Your task to perform on an android device: turn vacation reply on in the gmail app Image 0: 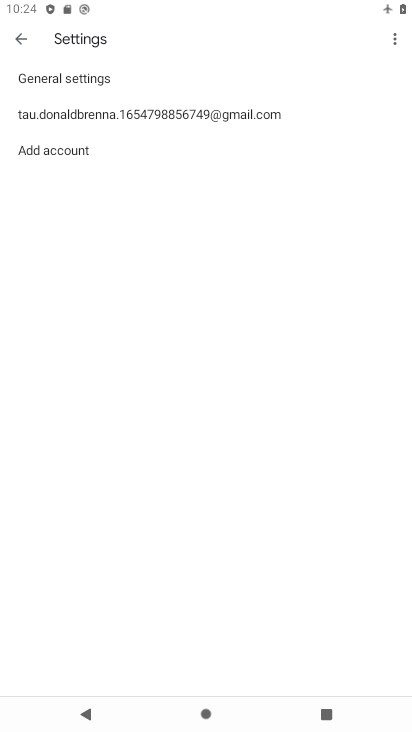
Step 0: press home button
Your task to perform on an android device: turn vacation reply on in the gmail app Image 1: 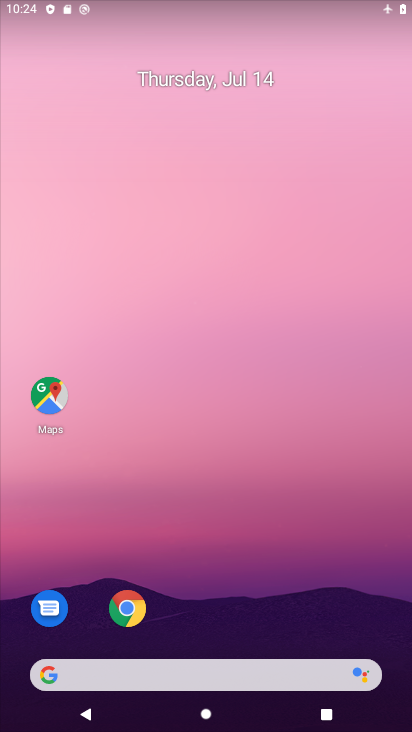
Step 1: drag from (251, 632) to (261, 18)
Your task to perform on an android device: turn vacation reply on in the gmail app Image 2: 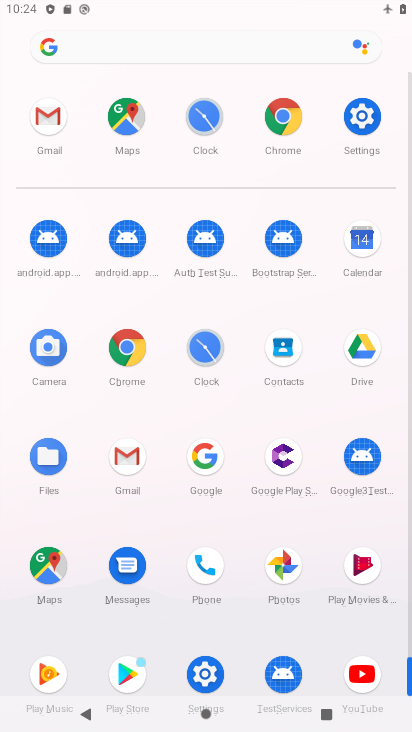
Step 2: click (133, 475)
Your task to perform on an android device: turn vacation reply on in the gmail app Image 3: 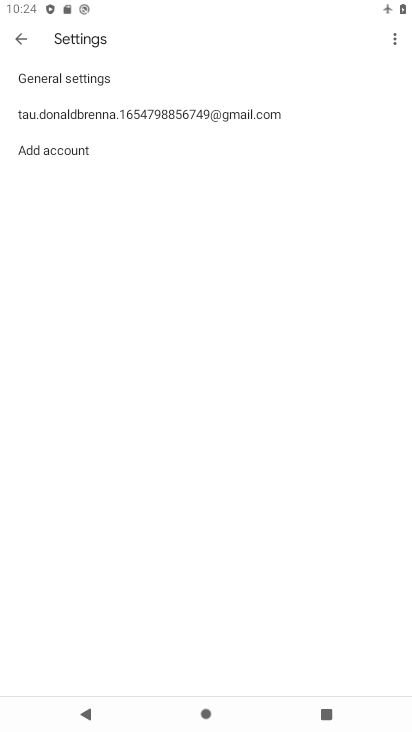
Step 3: click (94, 115)
Your task to perform on an android device: turn vacation reply on in the gmail app Image 4: 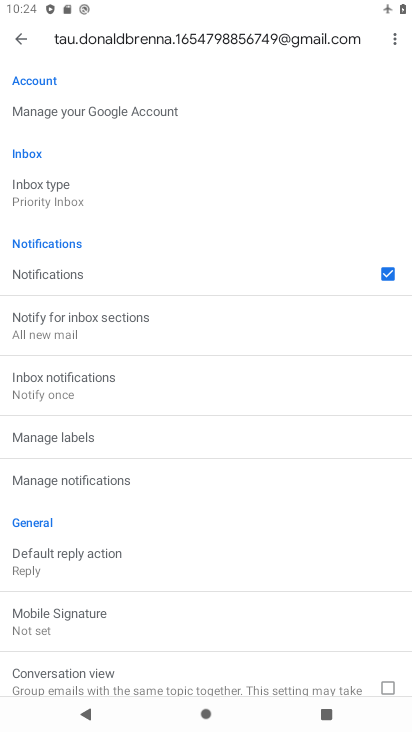
Step 4: drag from (131, 483) to (151, 227)
Your task to perform on an android device: turn vacation reply on in the gmail app Image 5: 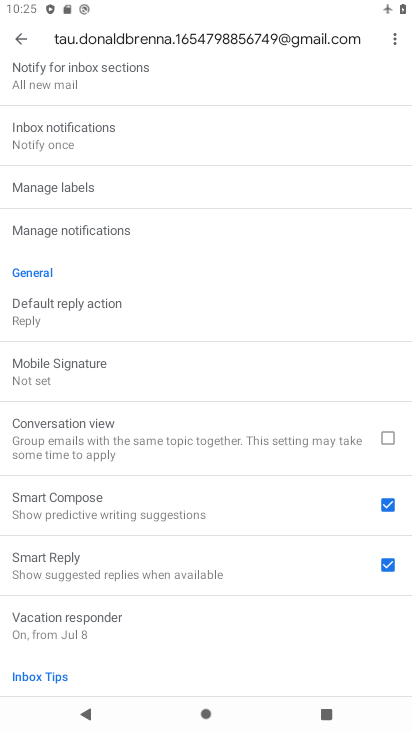
Step 5: click (107, 630)
Your task to perform on an android device: turn vacation reply on in the gmail app Image 6: 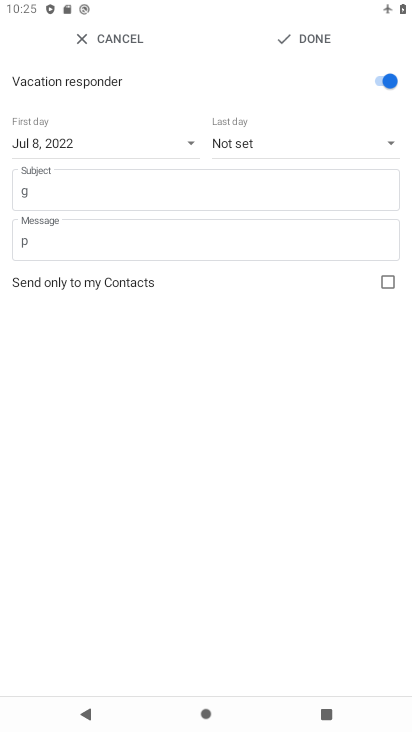
Step 6: task complete